Your task to perform on an android device: check google app version Image 0: 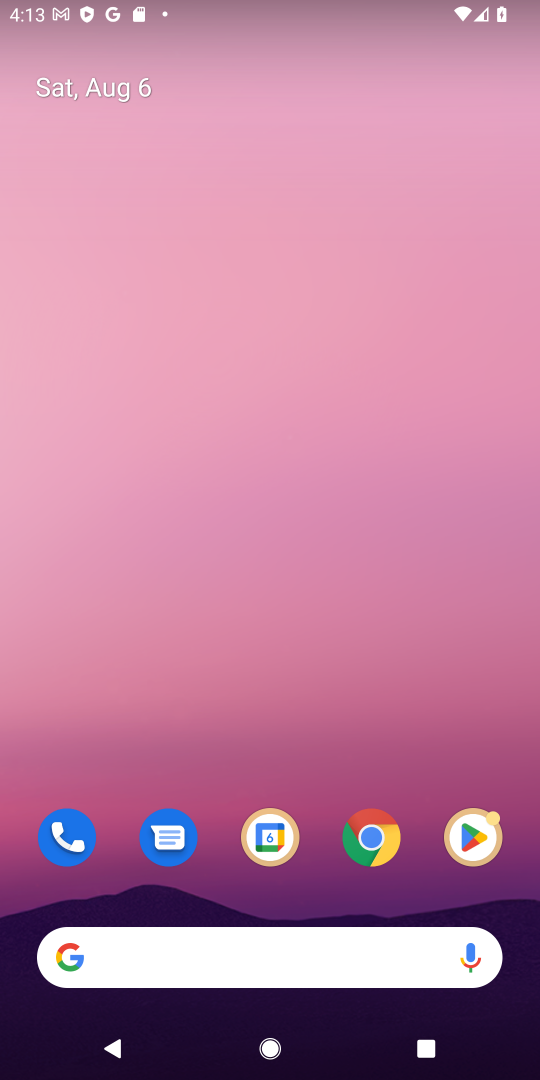
Step 0: click (371, 841)
Your task to perform on an android device: check google app version Image 1: 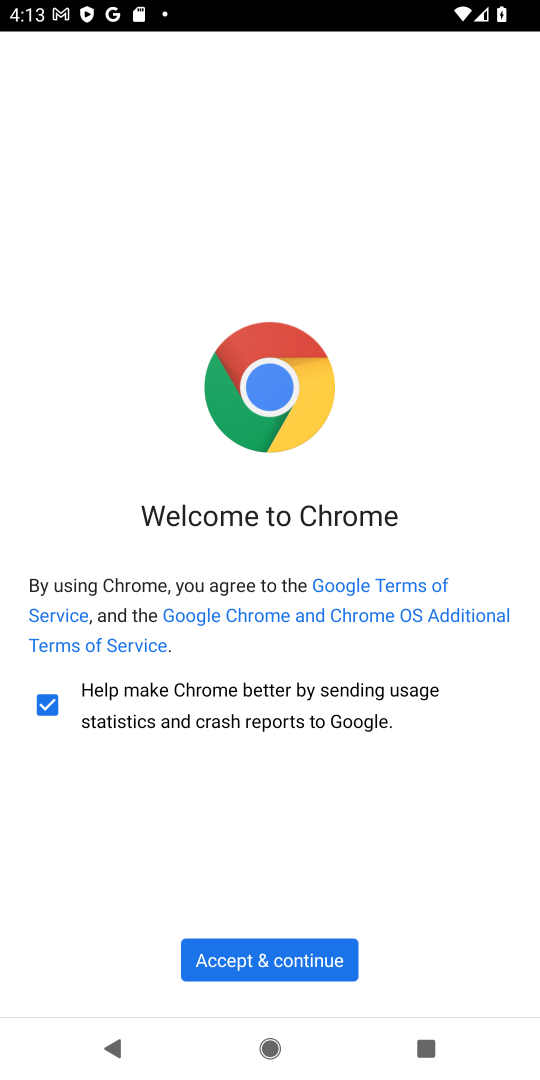
Step 1: click (262, 965)
Your task to perform on an android device: check google app version Image 2: 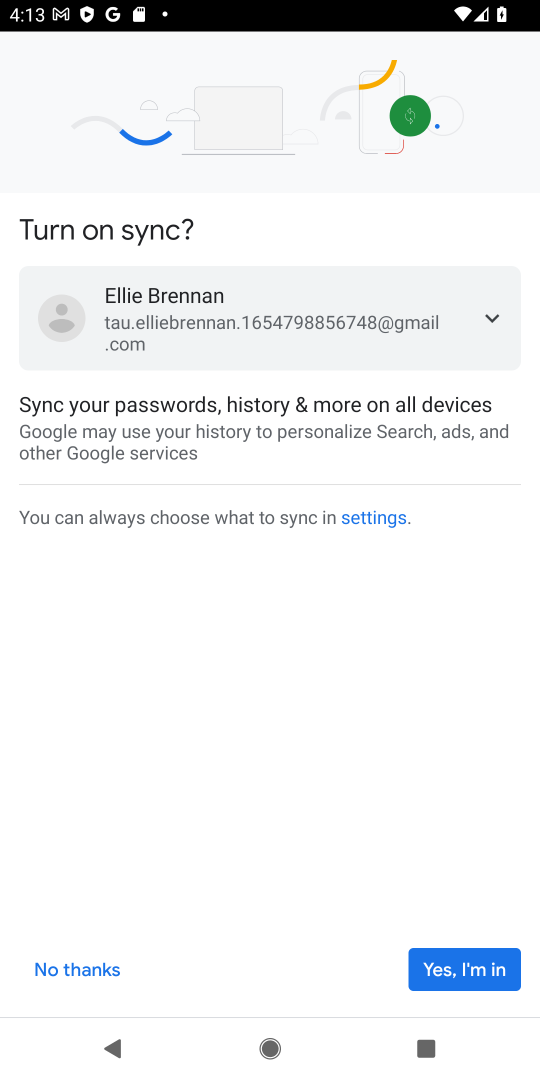
Step 2: click (465, 964)
Your task to perform on an android device: check google app version Image 3: 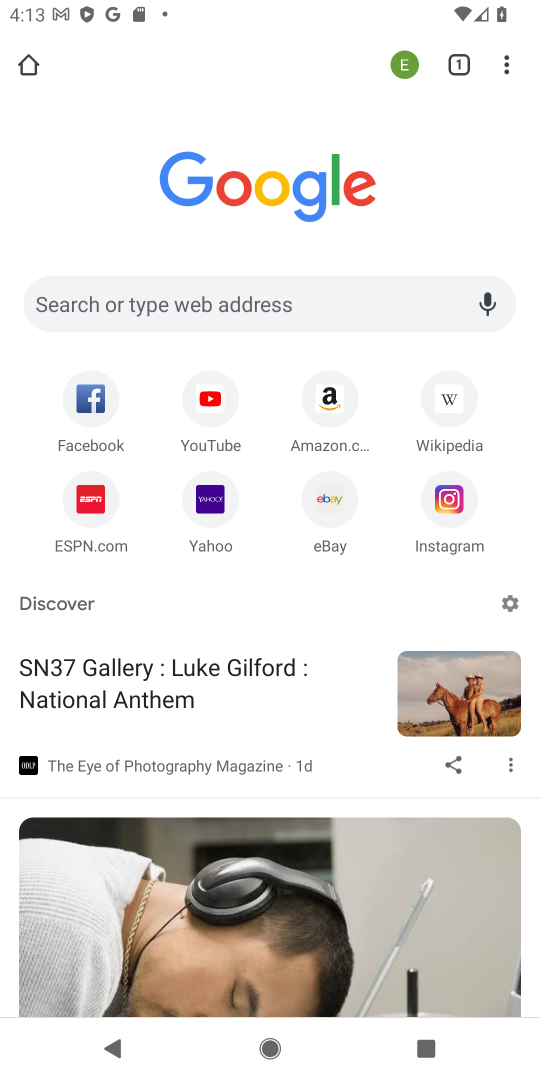
Step 3: click (502, 74)
Your task to perform on an android device: check google app version Image 4: 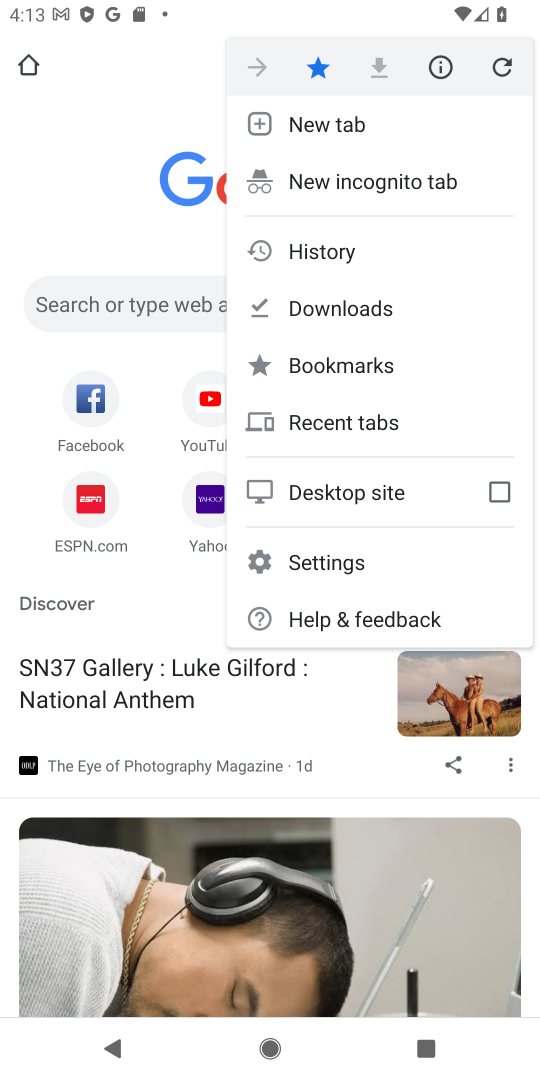
Step 4: click (330, 559)
Your task to perform on an android device: check google app version Image 5: 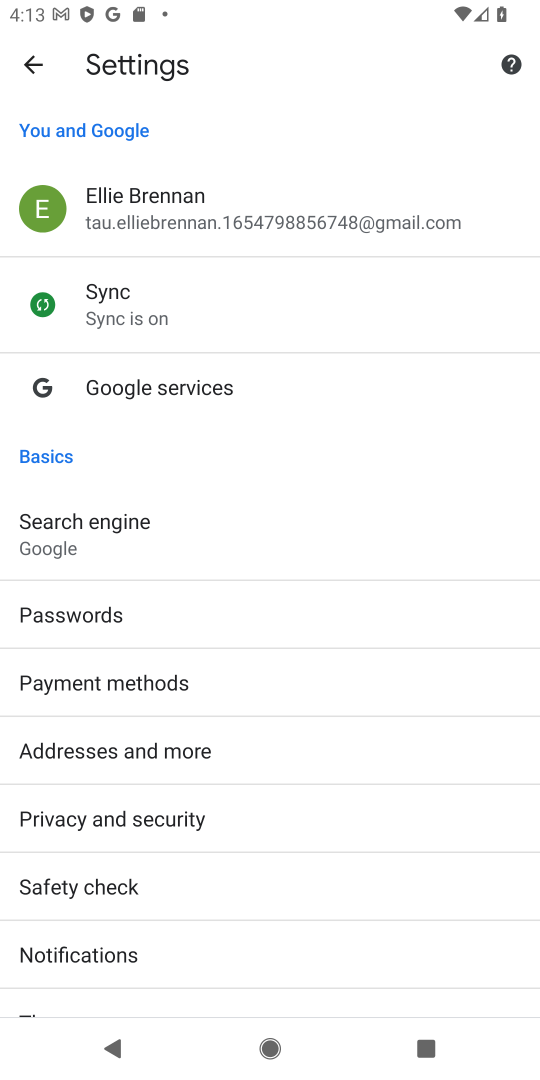
Step 5: drag from (272, 983) to (311, 408)
Your task to perform on an android device: check google app version Image 6: 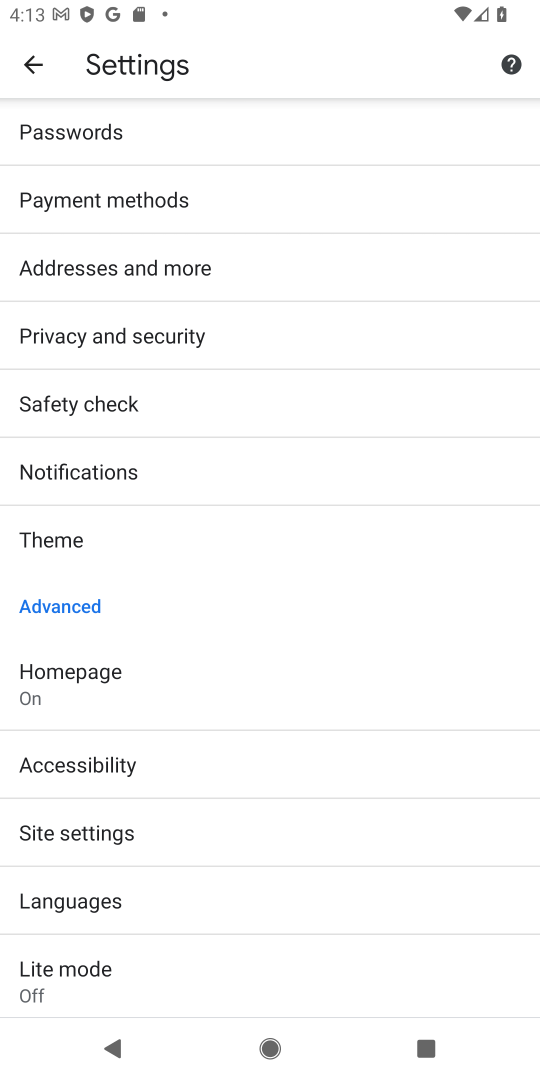
Step 6: drag from (300, 980) to (313, 465)
Your task to perform on an android device: check google app version Image 7: 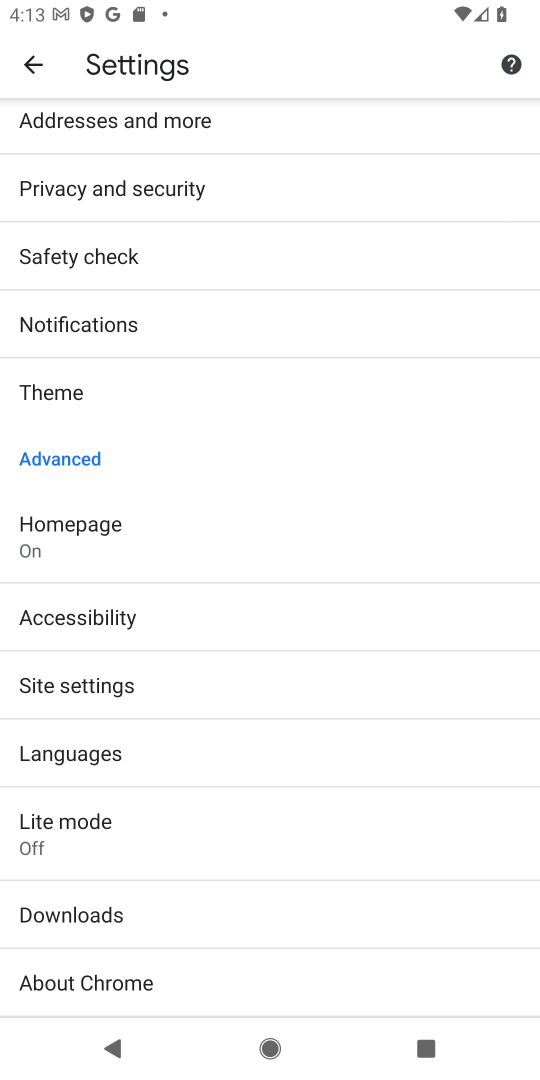
Step 7: click (69, 975)
Your task to perform on an android device: check google app version Image 8: 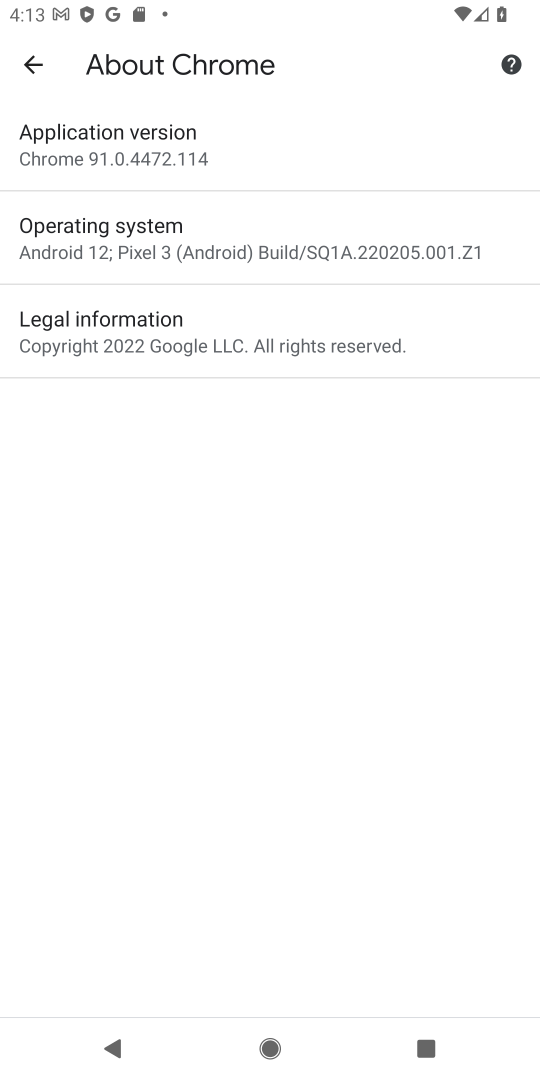
Step 8: click (164, 145)
Your task to perform on an android device: check google app version Image 9: 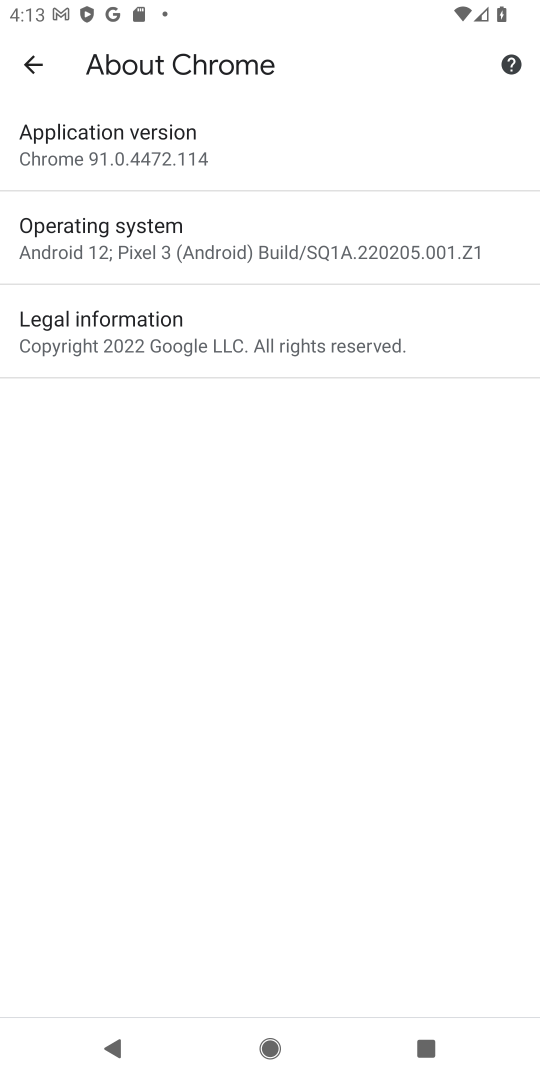
Step 9: task complete